Your task to perform on an android device: Open eBay Image 0: 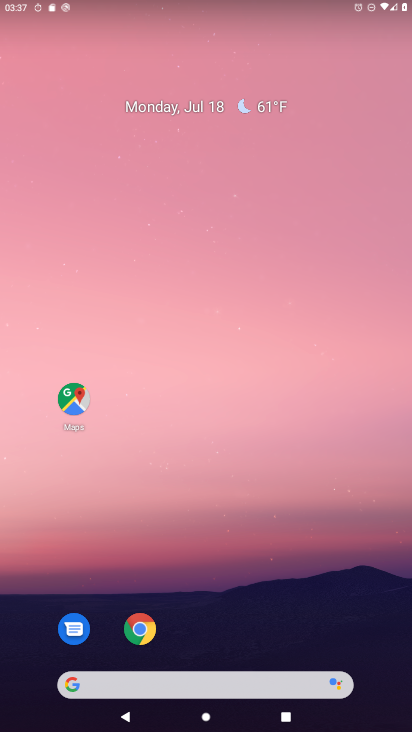
Step 0: click (141, 631)
Your task to perform on an android device: Open eBay Image 1: 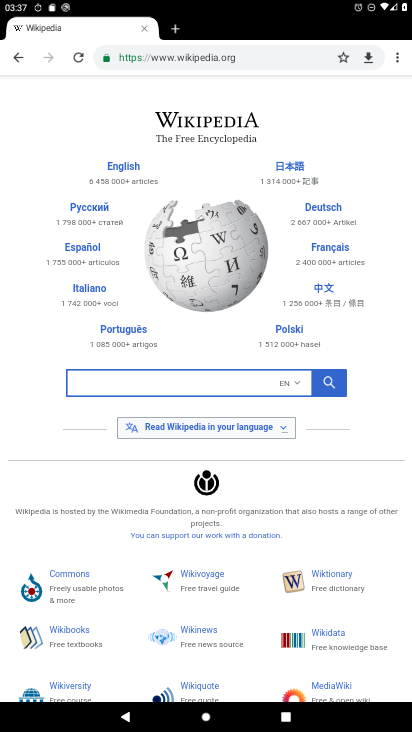
Step 1: click (281, 66)
Your task to perform on an android device: Open eBay Image 2: 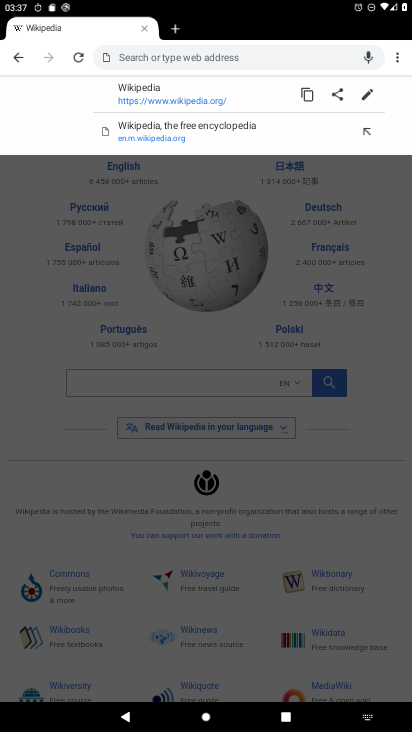
Step 2: type "eBay"
Your task to perform on an android device: Open eBay Image 3: 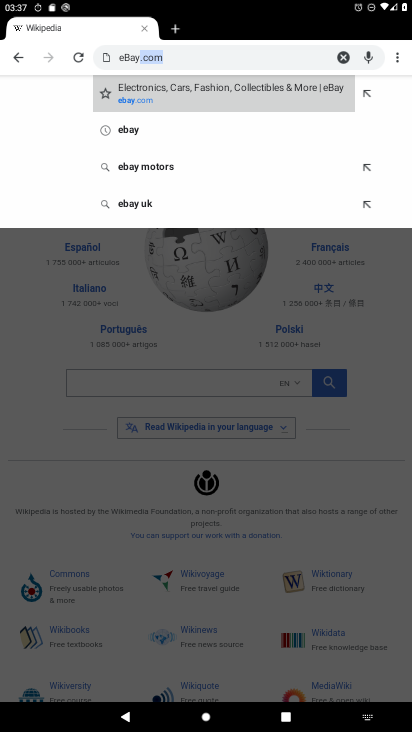
Step 3: click (169, 99)
Your task to perform on an android device: Open eBay Image 4: 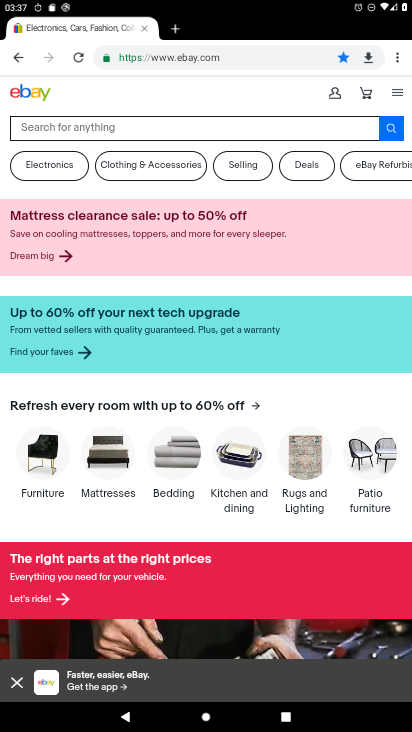
Step 4: task complete